Your task to perform on an android device: toggle notifications settings in the gmail app Image 0: 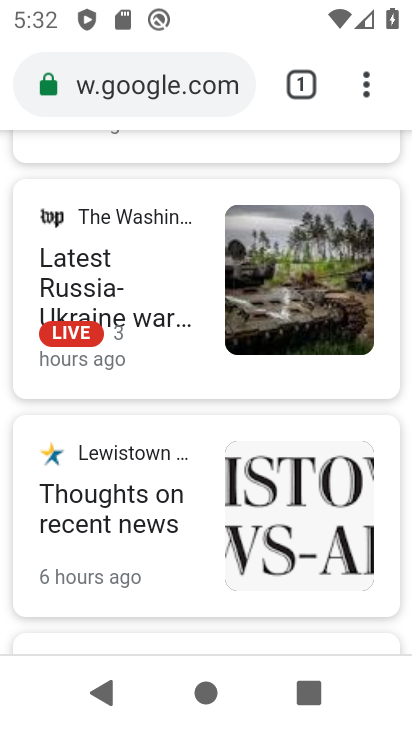
Step 0: press home button
Your task to perform on an android device: toggle notifications settings in the gmail app Image 1: 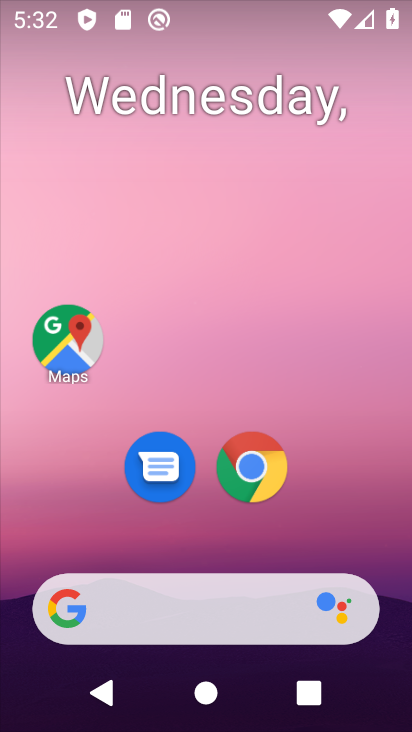
Step 1: drag from (344, 528) to (370, 152)
Your task to perform on an android device: toggle notifications settings in the gmail app Image 2: 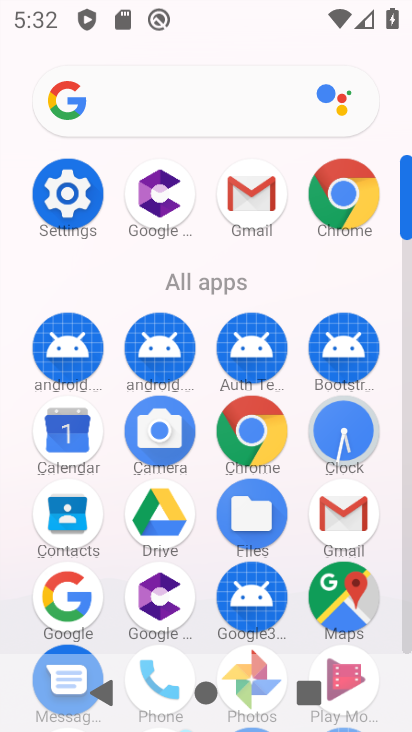
Step 2: click (351, 507)
Your task to perform on an android device: toggle notifications settings in the gmail app Image 3: 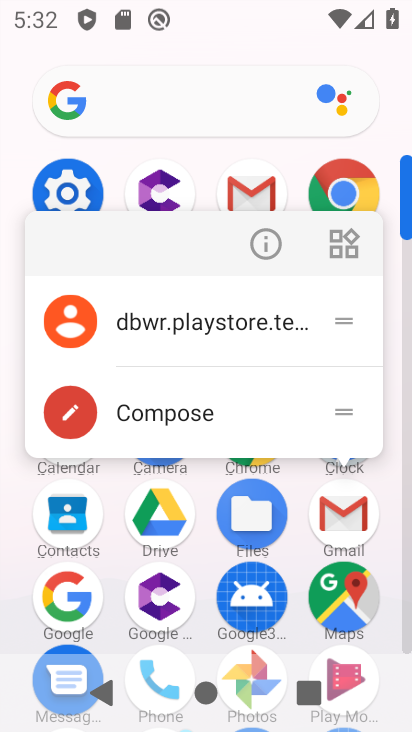
Step 3: click (272, 252)
Your task to perform on an android device: toggle notifications settings in the gmail app Image 4: 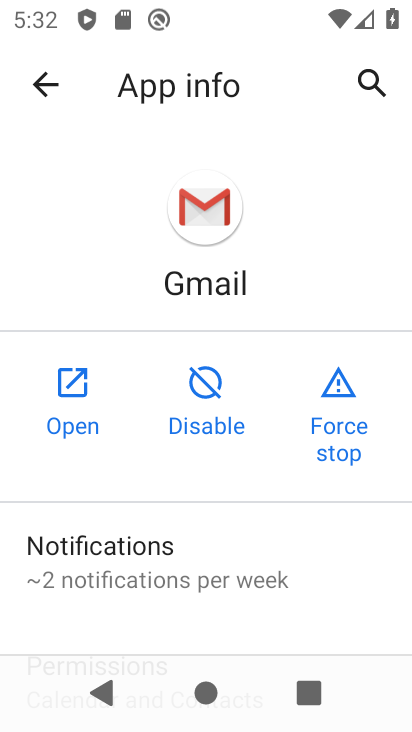
Step 4: click (129, 534)
Your task to perform on an android device: toggle notifications settings in the gmail app Image 5: 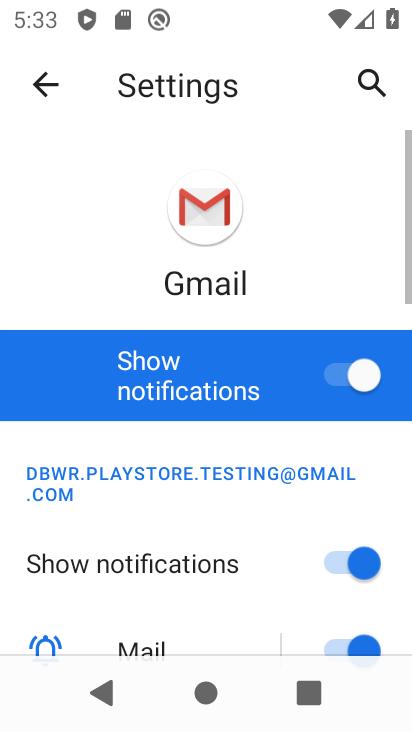
Step 5: click (339, 368)
Your task to perform on an android device: toggle notifications settings in the gmail app Image 6: 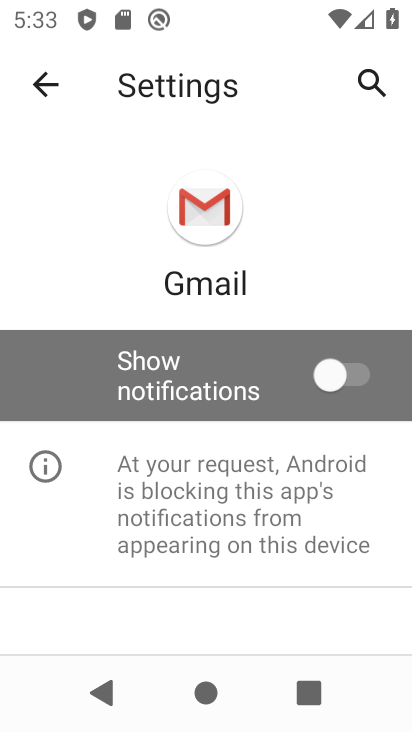
Step 6: task complete